Your task to perform on an android device: turn on location history Image 0: 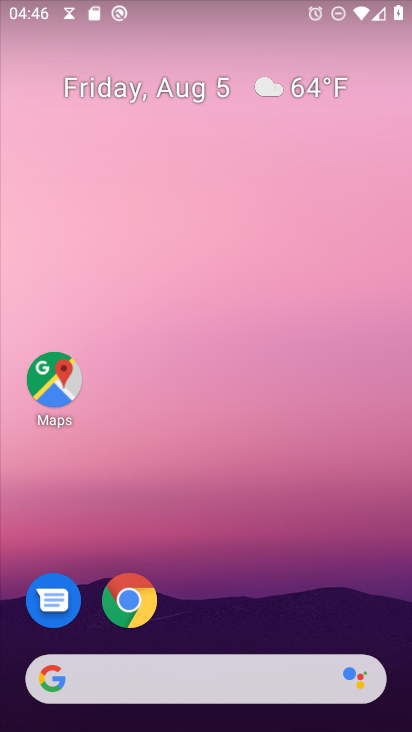
Step 0: drag from (228, 686) to (411, 6)
Your task to perform on an android device: turn on location history Image 1: 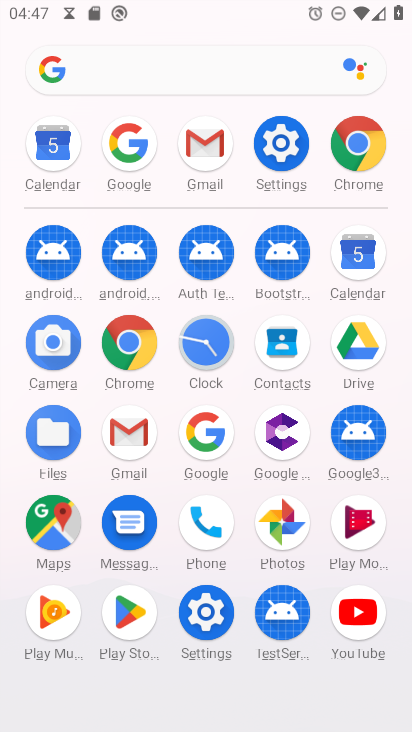
Step 1: click (283, 147)
Your task to perform on an android device: turn on location history Image 2: 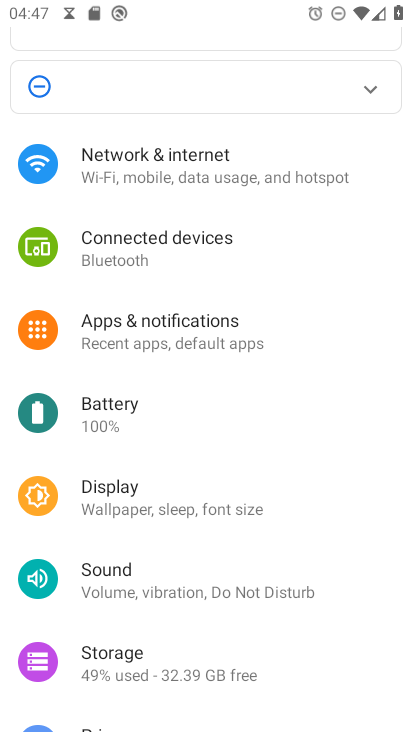
Step 2: drag from (188, 457) to (344, 209)
Your task to perform on an android device: turn on location history Image 3: 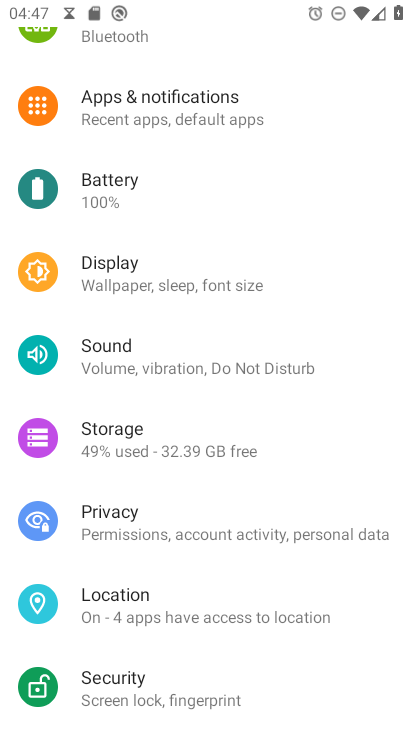
Step 3: click (134, 599)
Your task to perform on an android device: turn on location history Image 4: 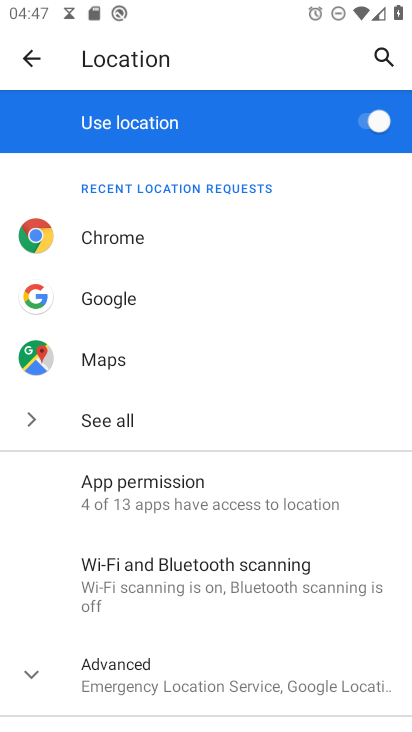
Step 4: drag from (158, 651) to (226, 560)
Your task to perform on an android device: turn on location history Image 5: 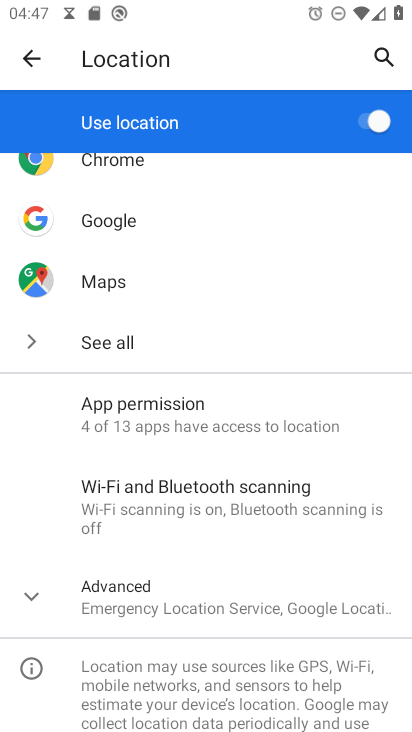
Step 5: click (203, 604)
Your task to perform on an android device: turn on location history Image 6: 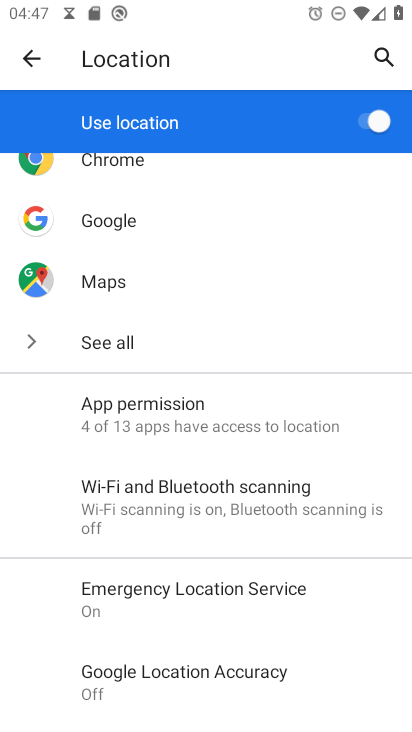
Step 6: drag from (201, 626) to (256, 541)
Your task to perform on an android device: turn on location history Image 7: 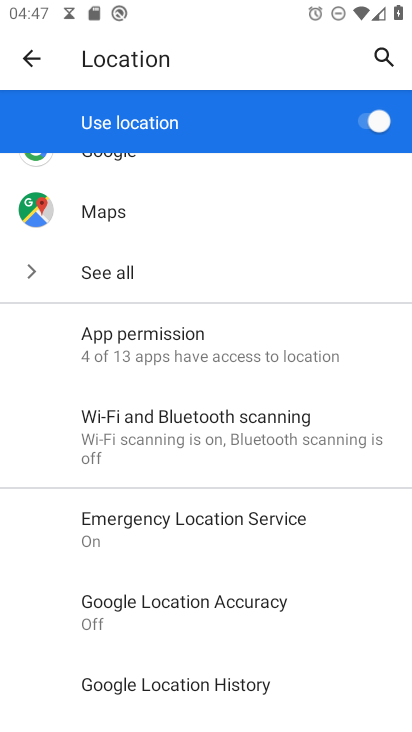
Step 7: drag from (218, 616) to (280, 543)
Your task to perform on an android device: turn on location history Image 8: 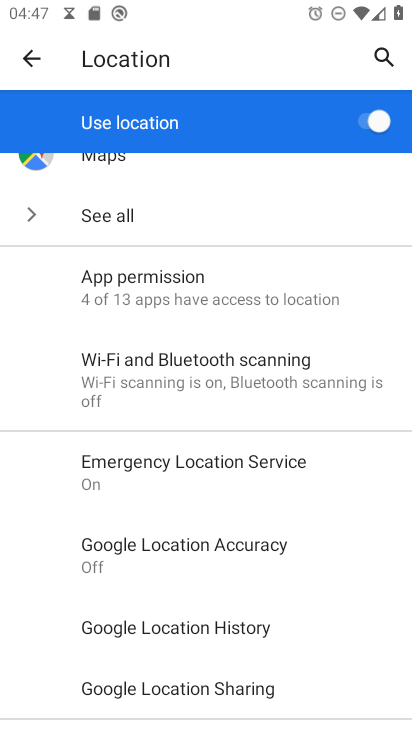
Step 8: click (214, 626)
Your task to perform on an android device: turn on location history Image 9: 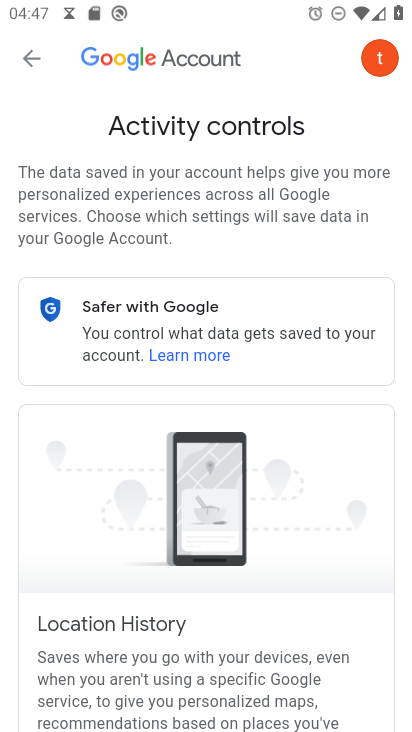
Step 9: drag from (217, 672) to (272, 512)
Your task to perform on an android device: turn on location history Image 10: 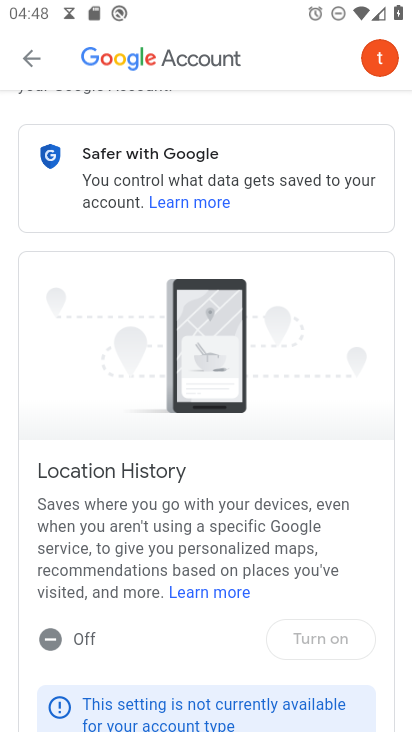
Step 10: drag from (212, 658) to (278, 457)
Your task to perform on an android device: turn on location history Image 11: 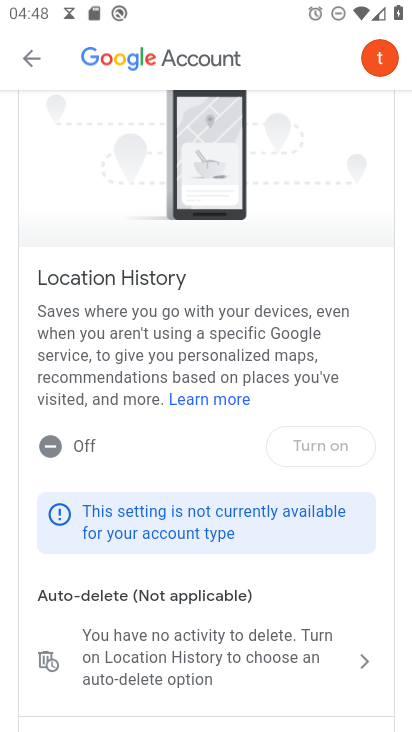
Step 11: drag from (217, 651) to (311, 534)
Your task to perform on an android device: turn on location history Image 12: 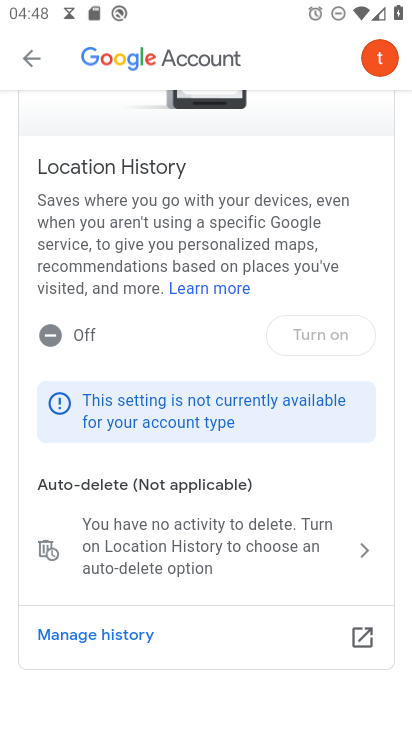
Step 12: drag from (226, 660) to (304, 530)
Your task to perform on an android device: turn on location history Image 13: 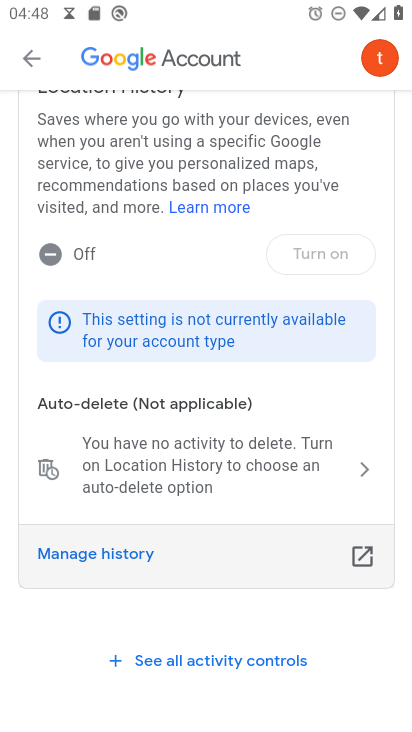
Step 13: click (205, 662)
Your task to perform on an android device: turn on location history Image 14: 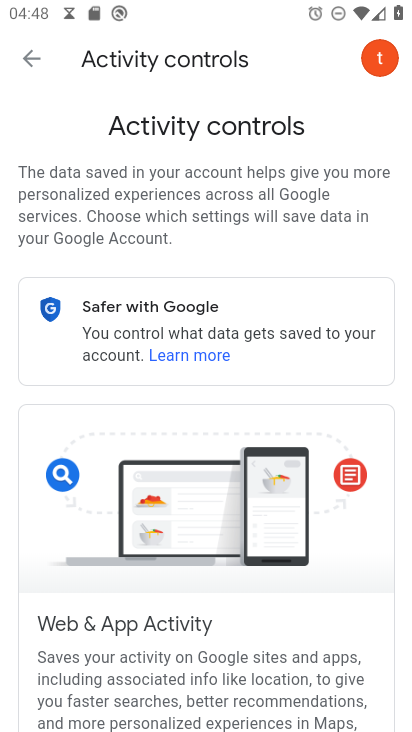
Step 14: task complete